Your task to perform on an android device: turn on airplane mode Image 0: 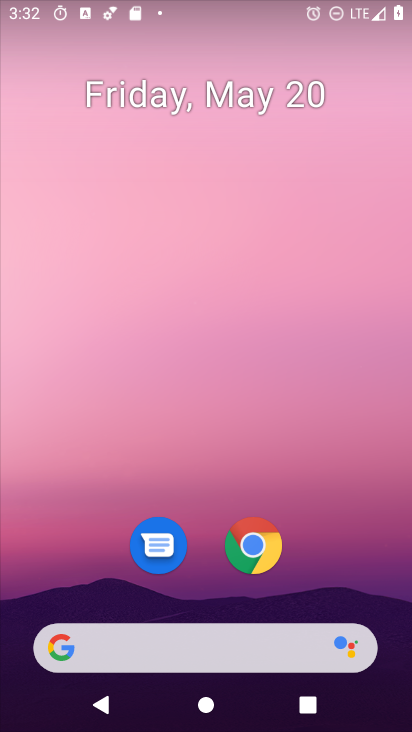
Step 0: drag from (321, 645) to (265, 29)
Your task to perform on an android device: turn on airplane mode Image 1: 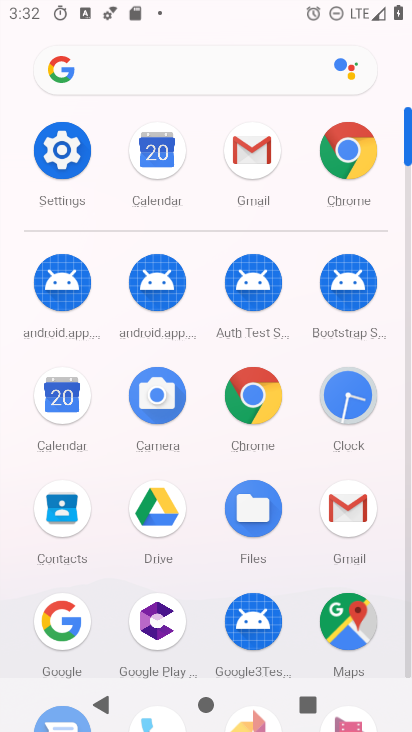
Step 1: drag from (101, 573) to (111, 295)
Your task to perform on an android device: turn on airplane mode Image 2: 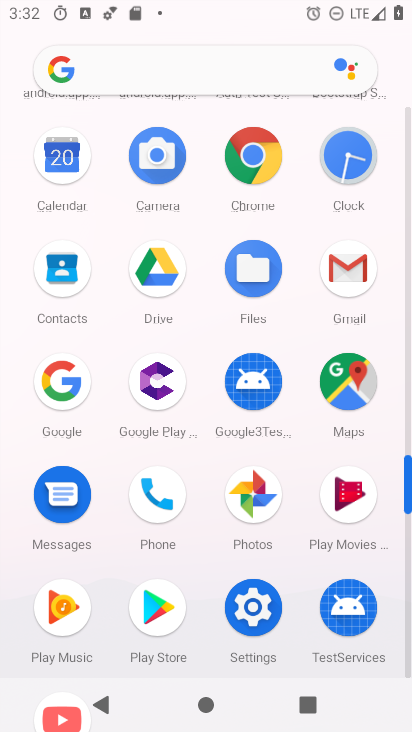
Step 2: drag from (111, 203) to (121, 673)
Your task to perform on an android device: turn on airplane mode Image 3: 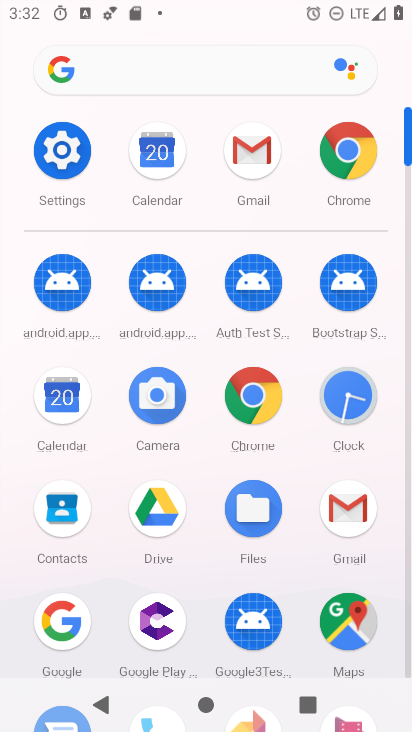
Step 3: click (56, 164)
Your task to perform on an android device: turn on airplane mode Image 4: 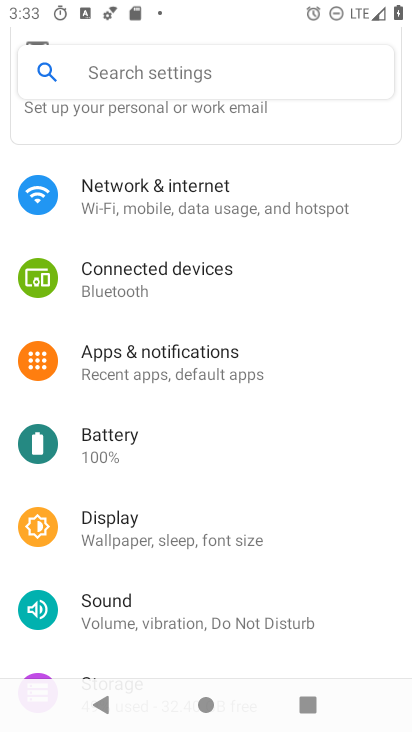
Step 4: drag from (227, 621) to (231, 97)
Your task to perform on an android device: turn on airplane mode Image 5: 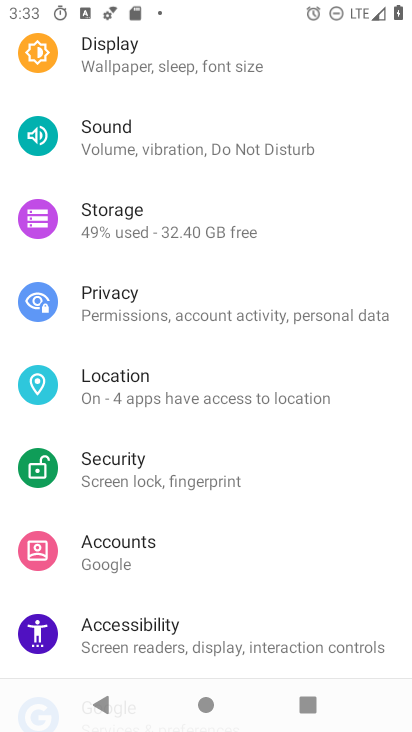
Step 5: drag from (214, 481) to (106, 711)
Your task to perform on an android device: turn on airplane mode Image 6: 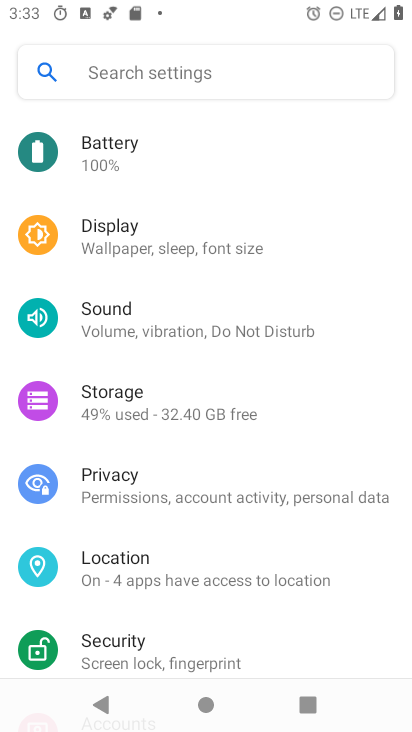
Step 6: drag from (195, 256) to (260, 667)
Your task to perform on an android device: turn on airplane mode Image 7: 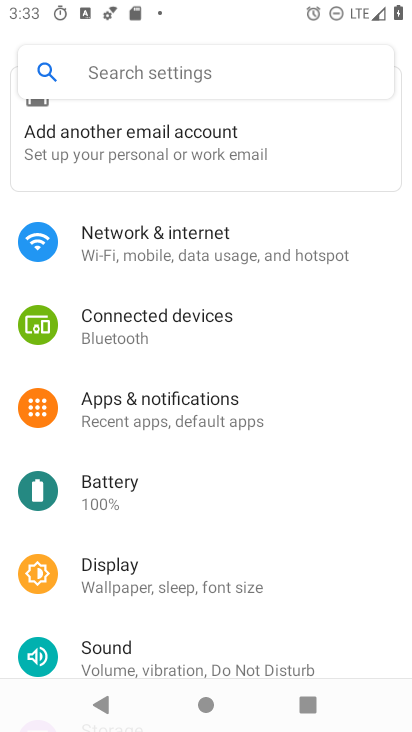
Step 7: click (170, 242)
Your task to perform on an android device: turn on airplane mode Image 8: 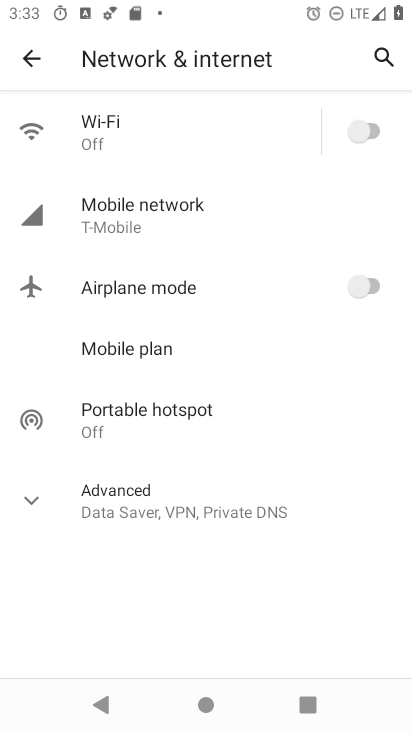
Step 8: click (373, 284)
Your task to perform on an android device: turn on airplane mode Image 9: 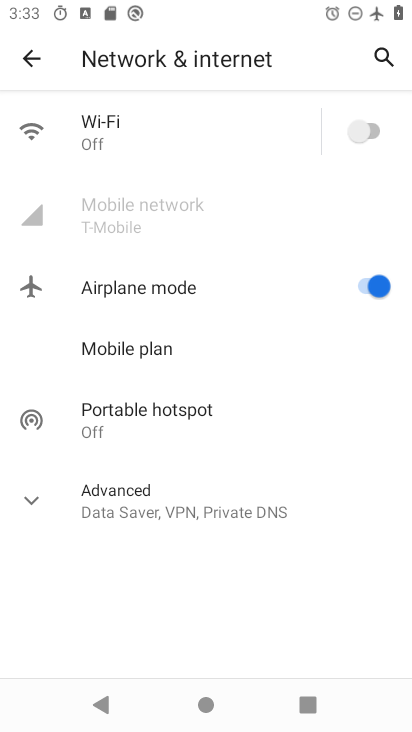
Step 9: task complete